Your task to perform on an android device: open the mobile data screen to see how much data has been used Image 0: 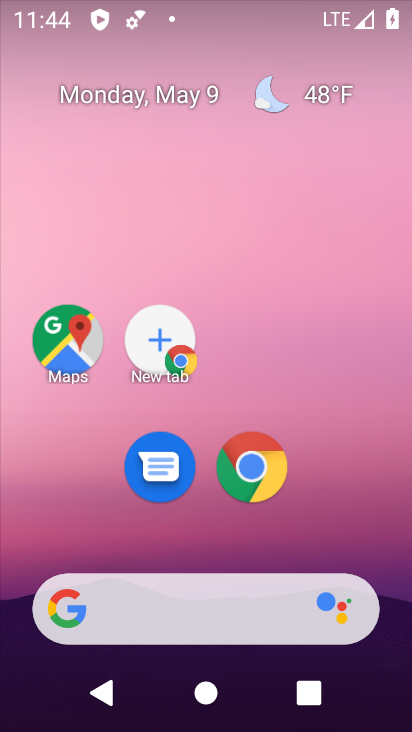
Step 0: drag from (362, 562) to (237, 14)
Your task to perform on an android device: open the mobile data screen to see how much data has been used Image 1: 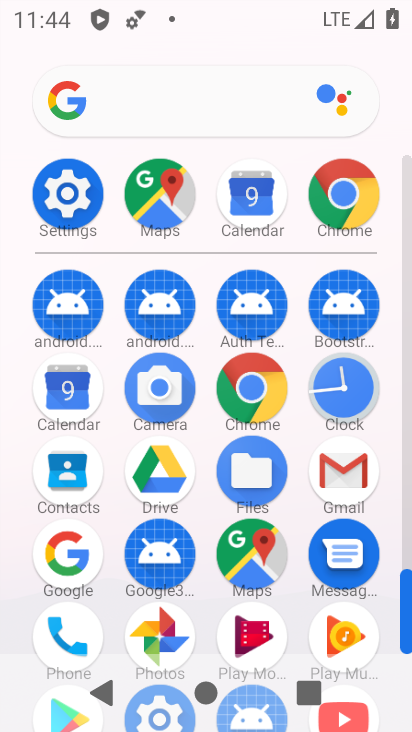
Step 1: click (83, 184)
Your task to perform on an android device: open the mobile data screen to see how much data has been used Image 2: 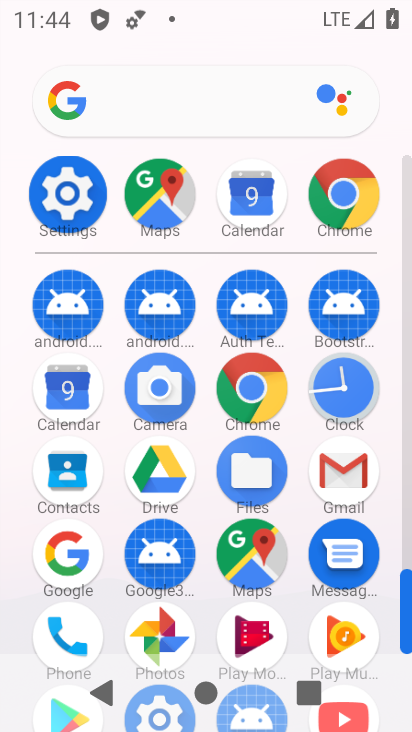
Step 2: click (82, 184)
Your task to perform on an android device: open the mobile data screen to see how much data has been used Image 3: 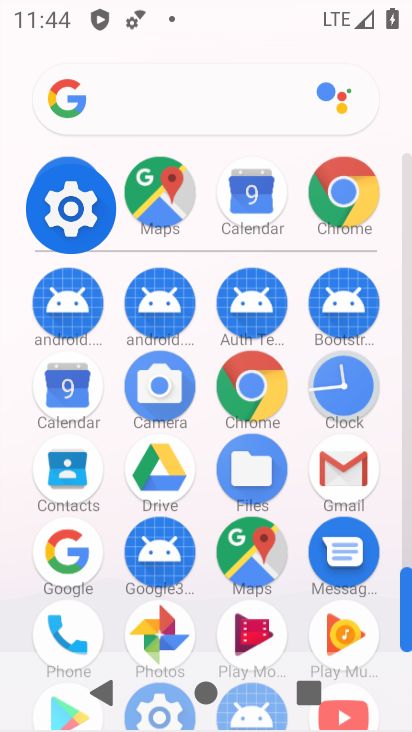
Step 3: click (81, 185)
Your task to perform on an android device: open the mobile data screen to see how much data has been used Image 4: 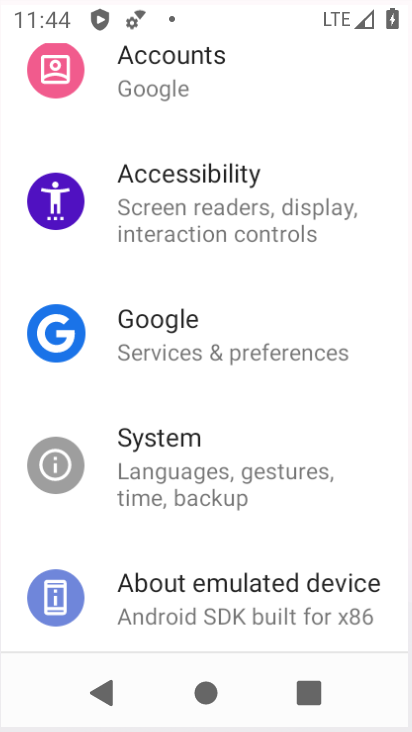
Step 4: click (81, 185)
Your task to perform on an android device: open the mobile data screen to see how much data has been used Image 5: 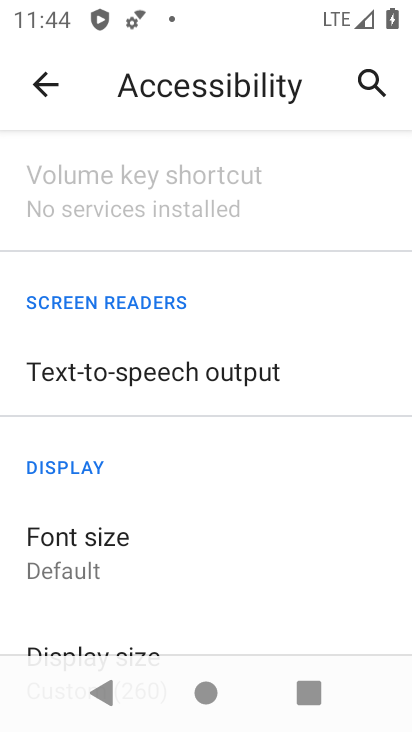
Step 5: click (53, 69)
Your task to perform on an android device: open the mobile data screen to see how much data has been used Image 6: 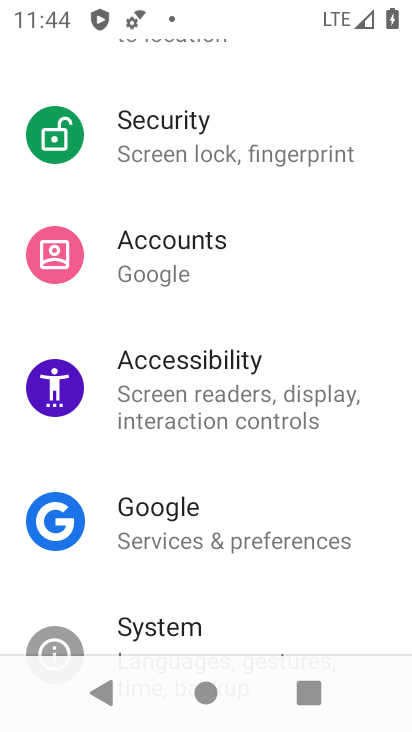
Step 6: drag from (163, 217) to (184, 554)
Your task to perform on an android device: open the mobile data screen to see how much data has been used Image 7: 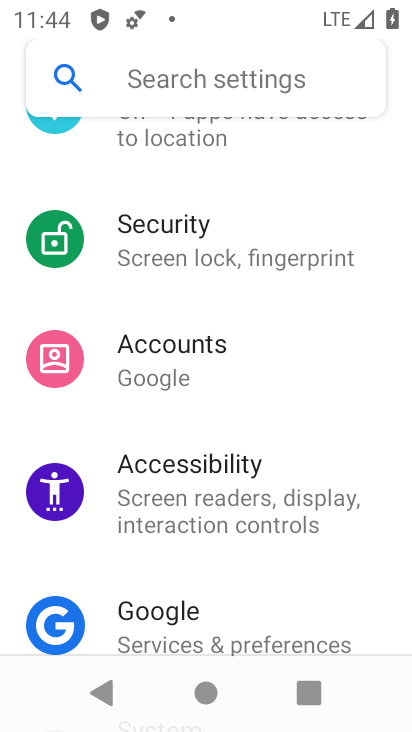
Step 7: drag from (213, 196) to (227, 538)
Your task to perform on an android device: open the mobile data screen to see how much data has been used Image 8: 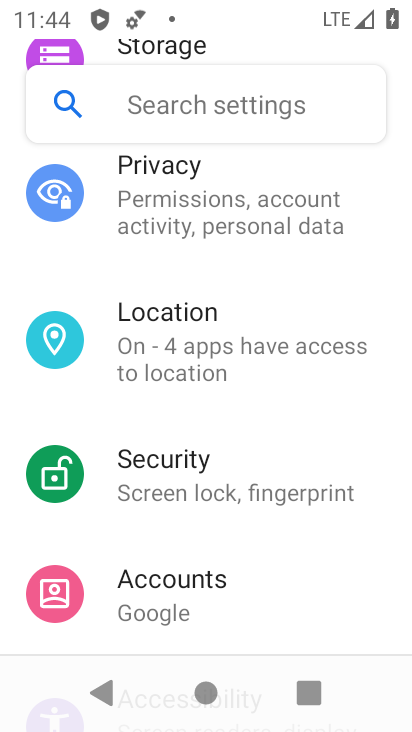
Step 8: drag from (162, 194) to (122, 534)
Your task to perform on an android device: open the mobile data screen to see how much data has been used Image 9: 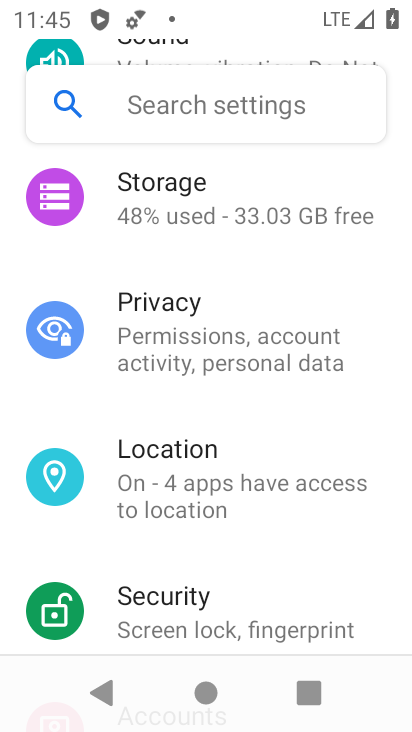
Step 9: drag from (162, 328) to (125, 633)
Your task to perform on an android device: open the mobile data screen to see how much data has been used Image 10: 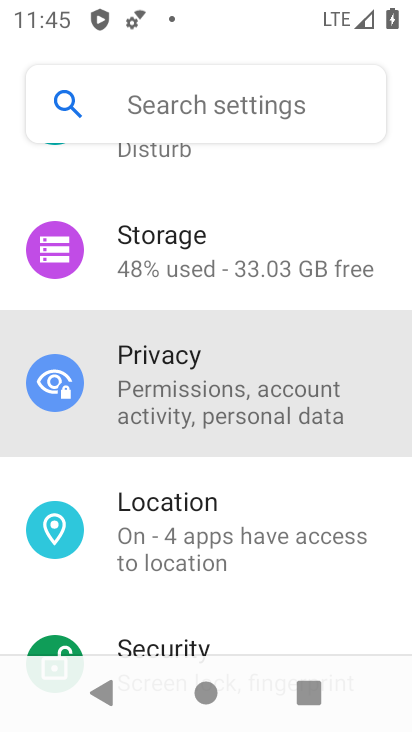
Step 10: drag from (162, 215) to (222, 625)
Your task to perform on an android device: open the mobile data screen to see how much data has been used Image 11: 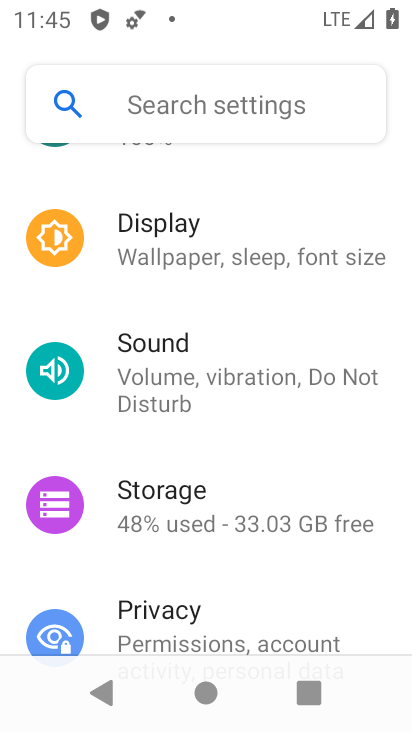
Step 11: drag from (211, 305) to (244, 610)
Your task to perform on an android device: open the mobile data screen to see how much data has been used Image 12: 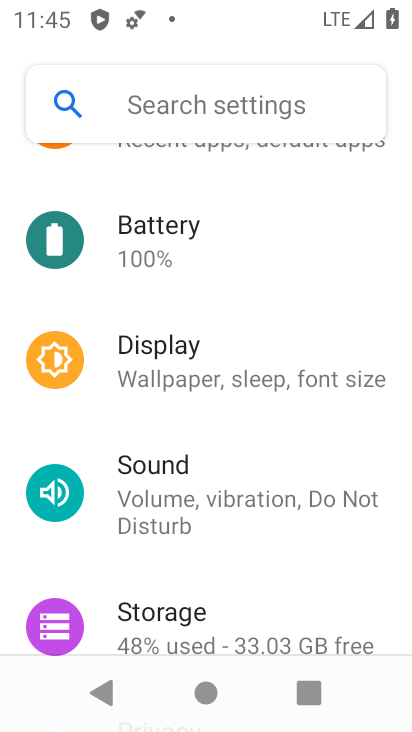
Step 12: drag from (240, 228) to (252, 583)
Your task to perform on an android device: open the mobile data screen to see how much data has been used Image 13: 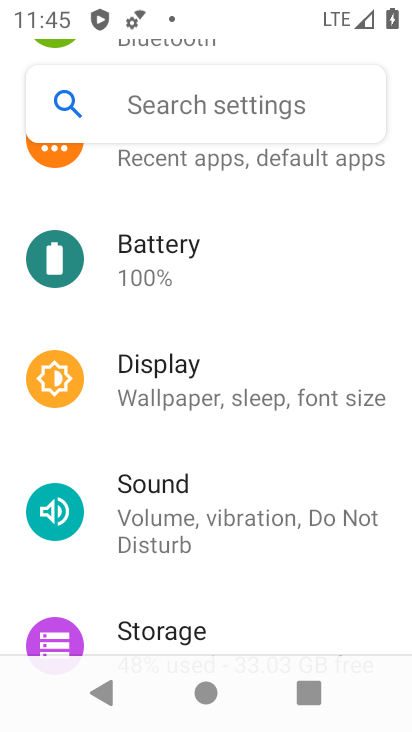
Step 13: drag from (211, 255) to (247, 679)
Your task to perform on an android device: open the mobile data screen to see how much data has been used Image 14: 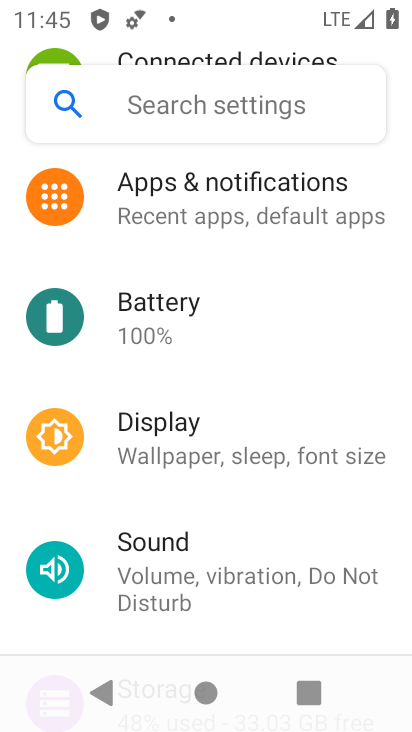
Step 14: click (272, 511)
Your task to perform on an android device: open the mobile data screen to see how much data has been used Image 15: 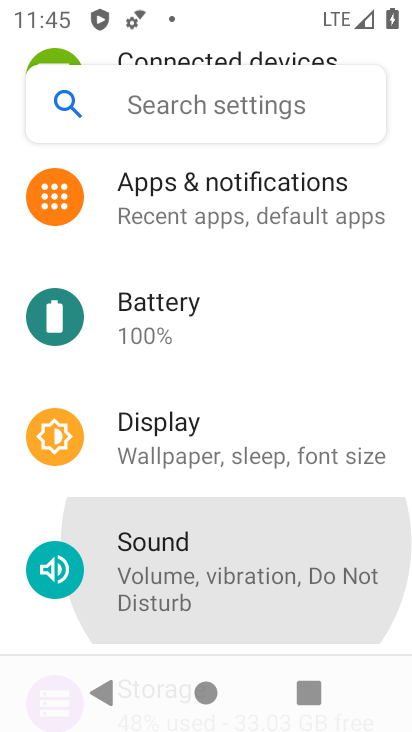
Step 15: click (220, 591)
Your task to perform on an android device: open the mobile data screen to see how much data has been used Image 16: 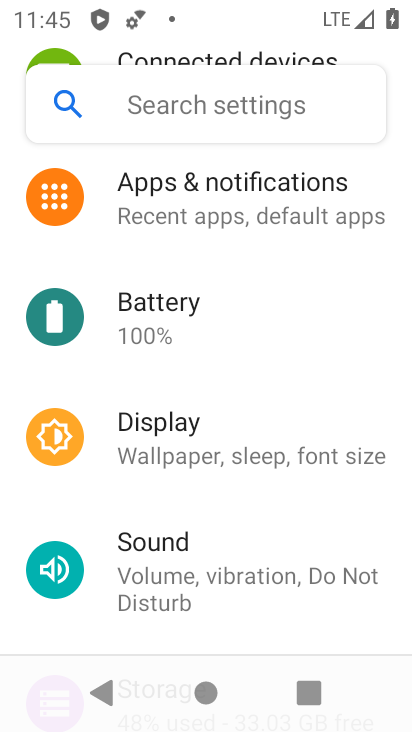
Step 16: drag from (225, 244) to (253, 644)
Your task to perform on an android device: open the mobile data screen to see how much data has been used Image 17: 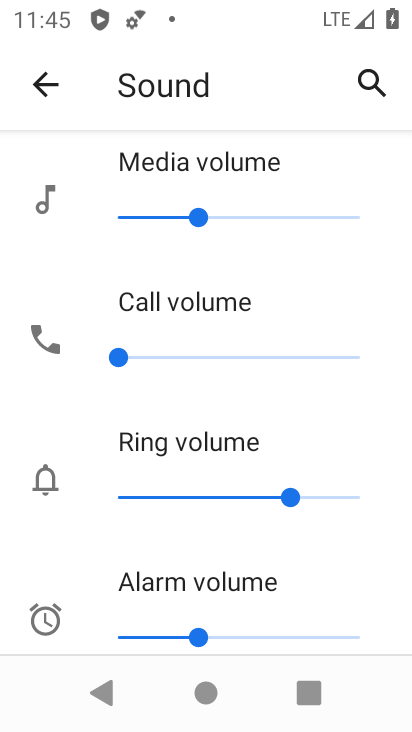
Step 17: click (50, 78)
Your task to perform on an android device: open the mobile data screen to see how much data has been used Image 18: 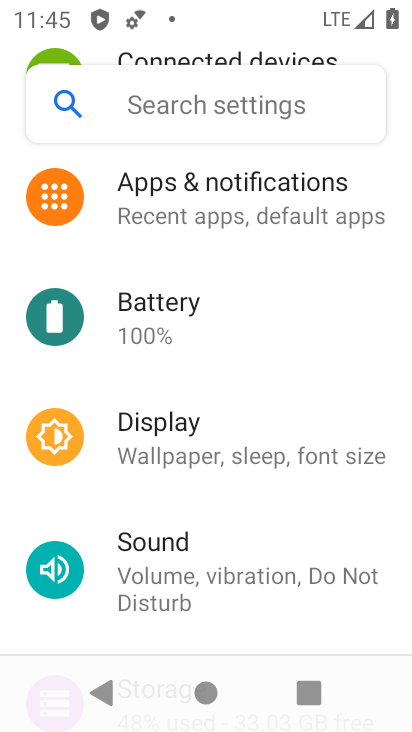
Step 18: drag from (194, 202) to (193, 514)
Your task to perform on an android device: open the mobile data screen to see how much data has been used Image 19: 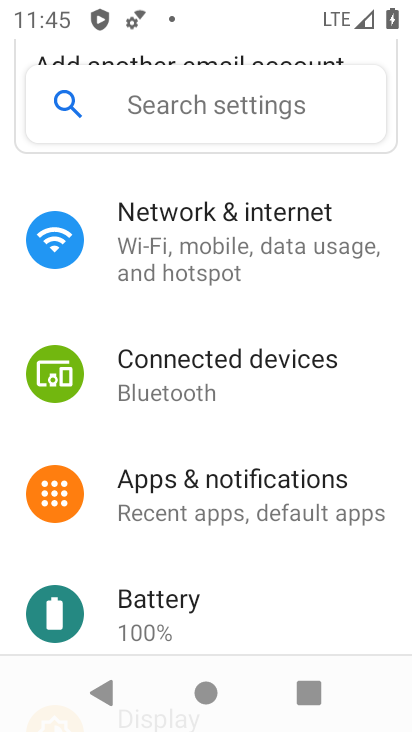
Step 19: click (189, 234)
Your task to perform on an android device: open the mobile data screen to see how much data has been used Image 20: 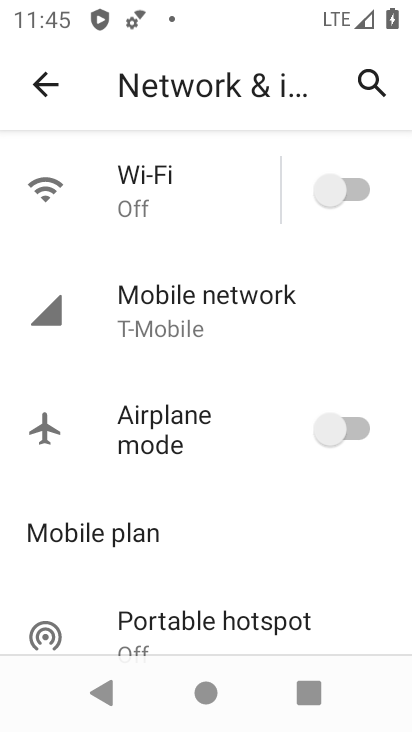
Step 20: click (185, 105)
Your task to perform on an android device: open the mobile data screen to see how much data has been used Image 21: 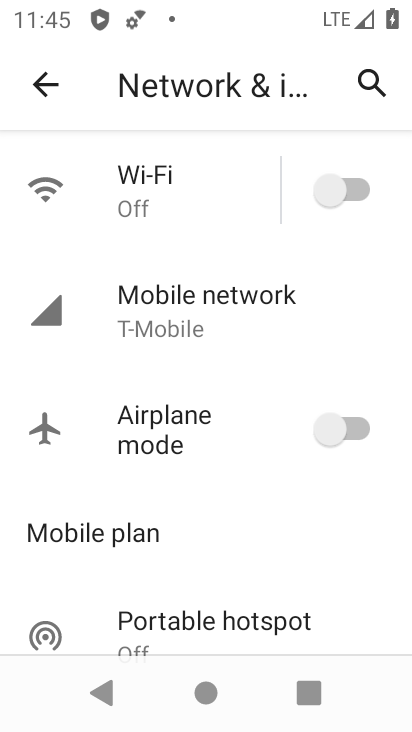
Step 21: click (37, 79)
Your task to perform on an android device: open the mobile data screen to see how much data has been used Image 22: 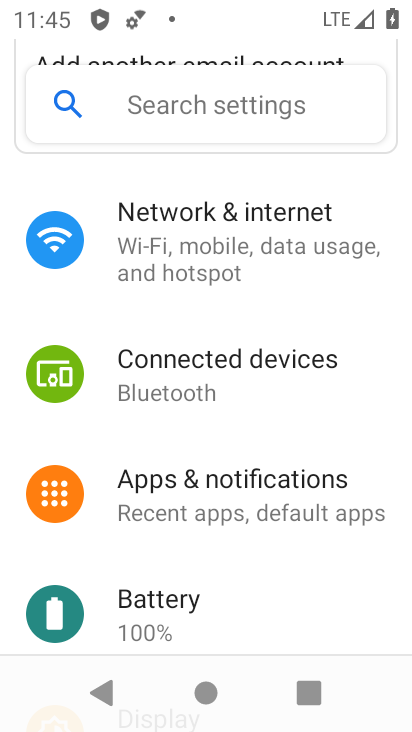
Step 22: click (175, 115)
Your task to perform on an android device: open the mobile data screen to see how much data has been used Image 23: 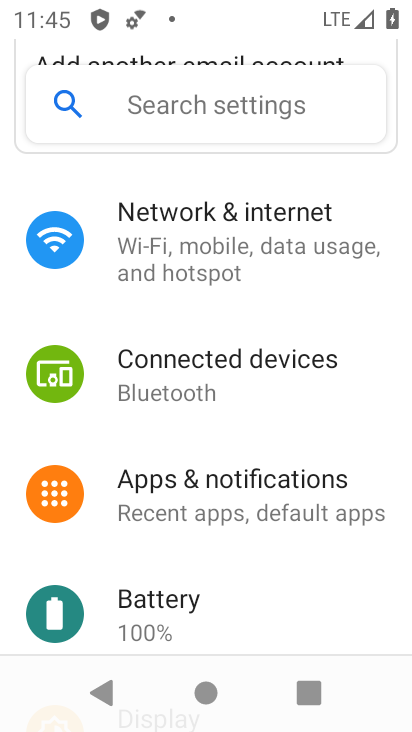
Step 23: task complete